Your task to perform on an android device: Go to eBay Image 0: 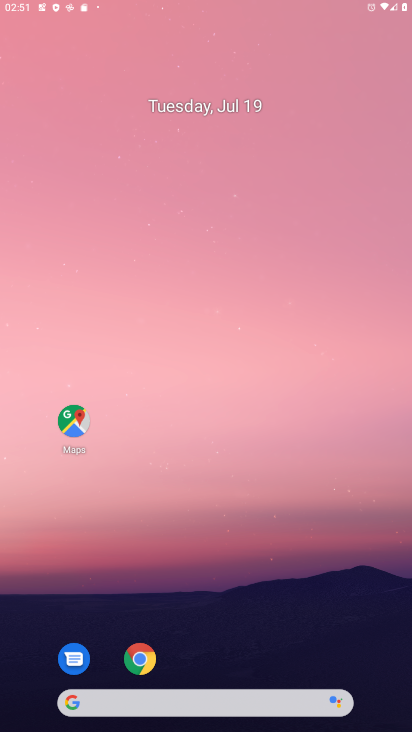
Step 0: press home button
Your task to perform on an android device: Go to eBay Image 1: 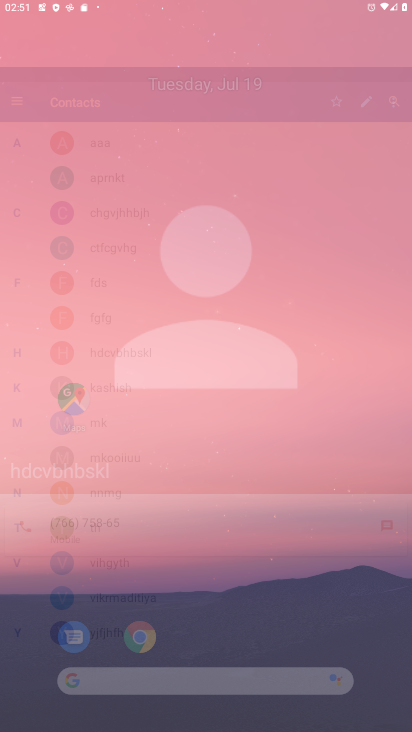
Step 1: drag from (324, 8) to (330, 74)
Your task to perform on an android device: Go to eBay Image 2: 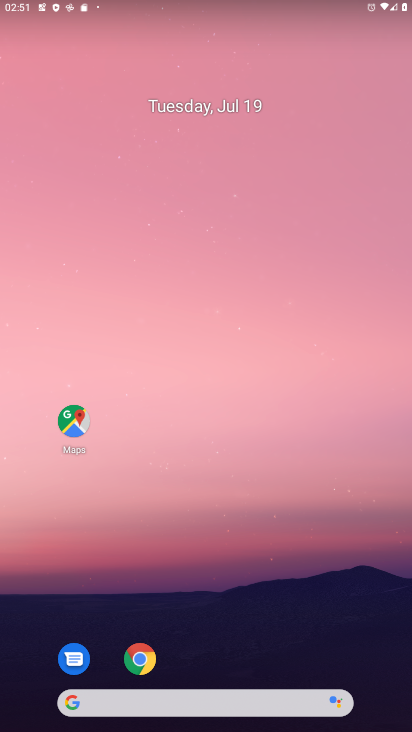
Step 2: click (143, 647)
Your task to perform on an android device: Go to eBay Image 3: 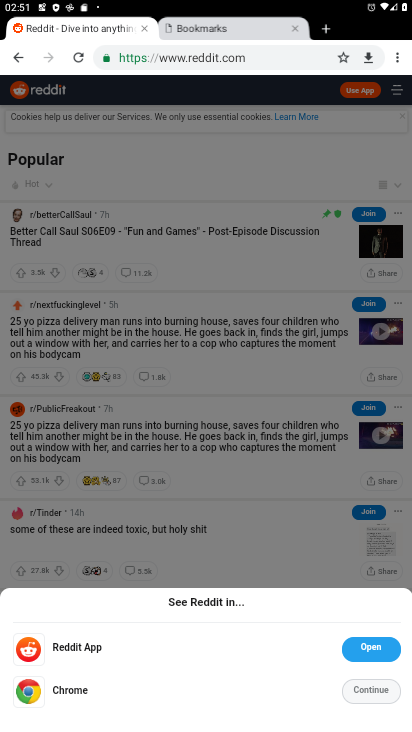
Step 3: click (213, 56)
Your task to perform on an android device: Go to eBay Image 4: 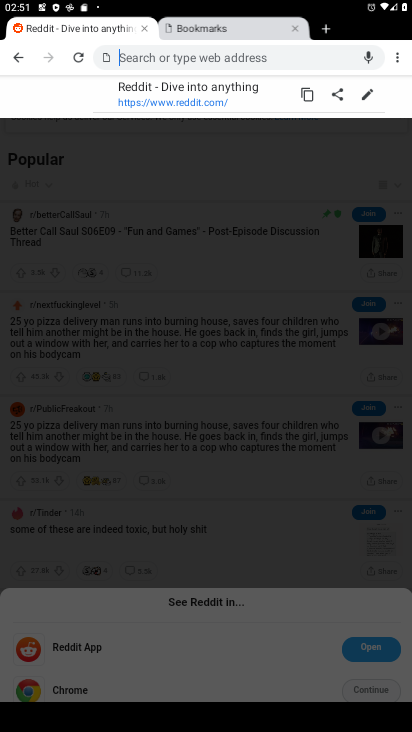
Step 4: type "eBay"
Your task to perform on an android device: Go to eBay Image 5: 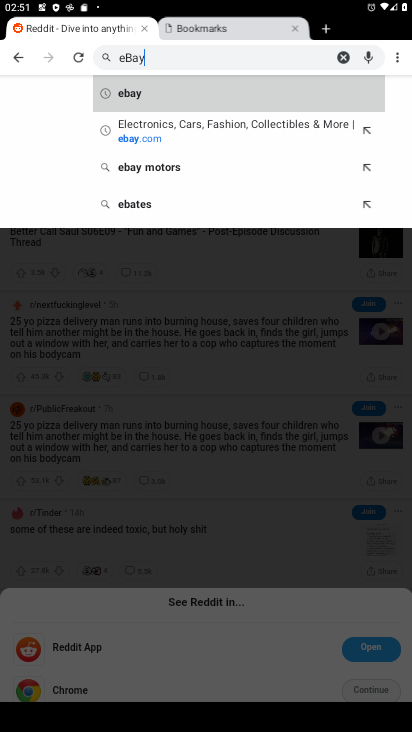
Step 5: type ""
Your task to perform on an android device: Go to eBay Image 6: 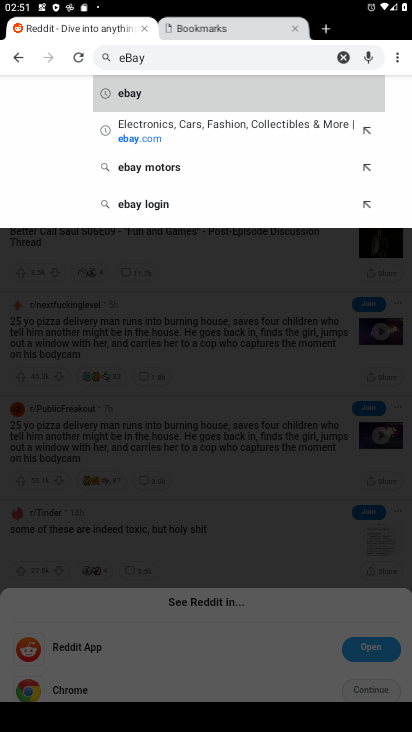
Step 6: click (131, 130)
Your task to perform on an android device: Go to eBay Image 7: 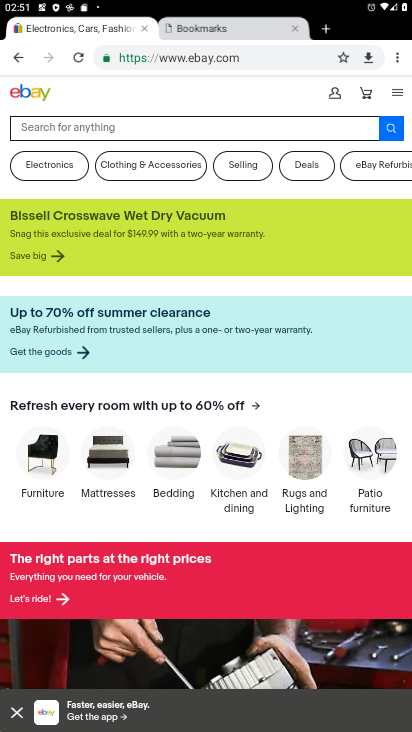
Step 7: task complete